Your task to perform on an android device: turn on priority inbox in the gmail app Image 0: 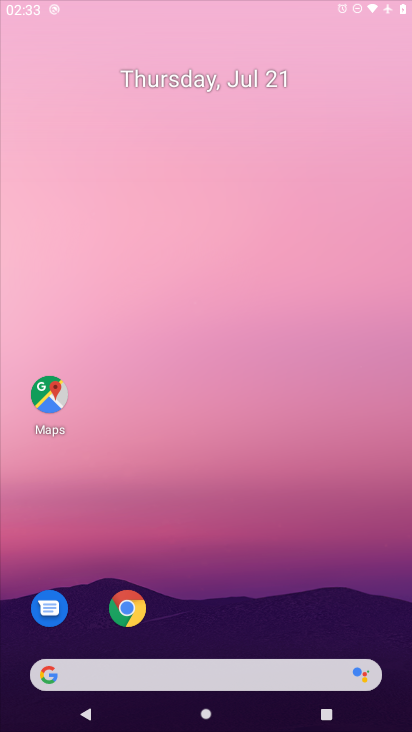
Step 0: press home button
Your task to perform on an android device: turn on priority inbox in the gmail app Image 1: 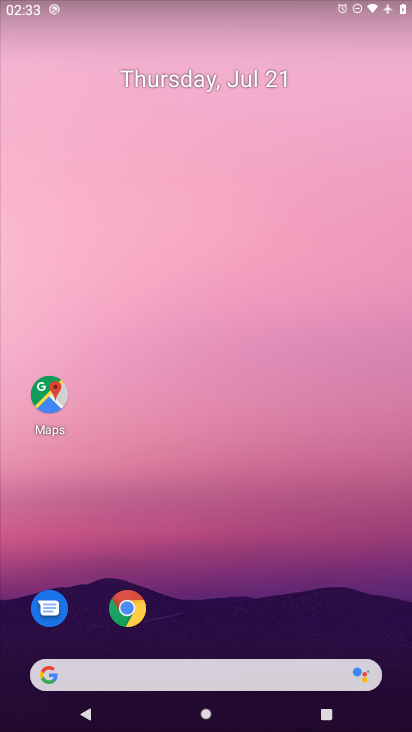
Step 1: drag from (249, 637) to (284, 121)
Your task to perform on an android device: turn on priority inbox in the gmail app Image 2: 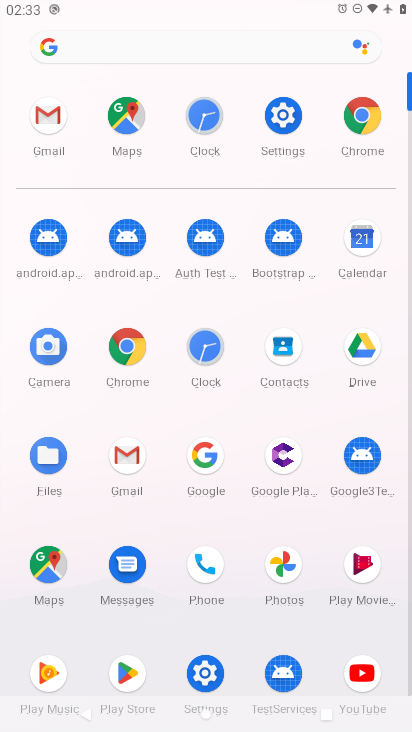
Step 2: click (55, 119)
Your task to perform on an android device: turn on priority inbox in the gmail app Image 3: 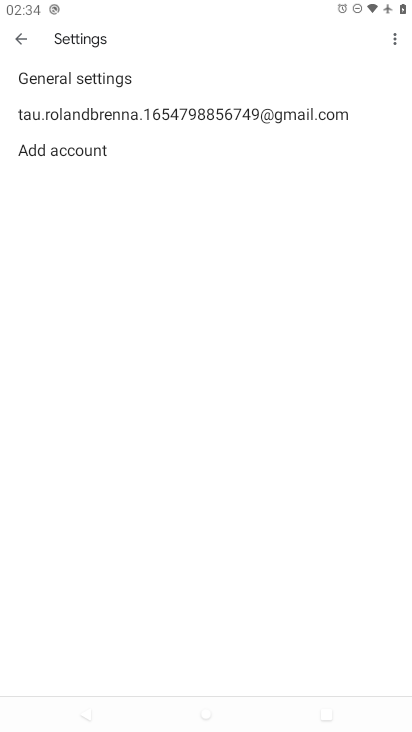
Step 3: click (58, 114)
Your task to perform on an android device: turn on priority inbox in the gmail app Image 4: 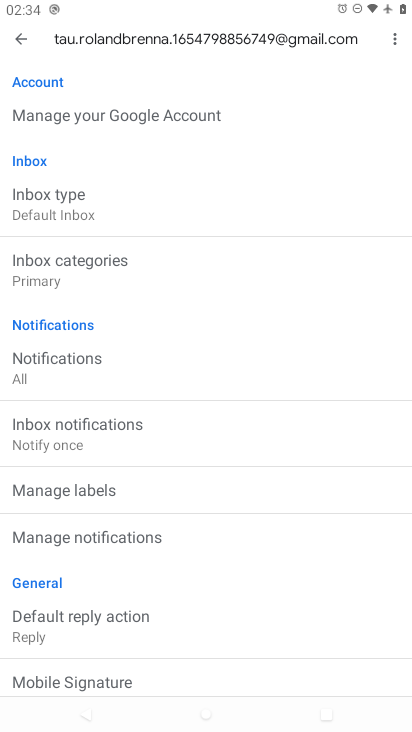
Step 4: click (65, 208)
Your task to perform on an android device: turn on priority inbox in the gmail app Image 5: 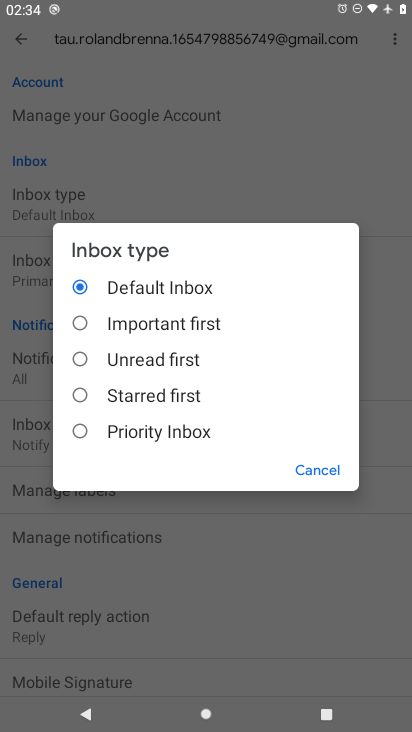
Step 5: click (80, 434)
Your task to perform on an android device: turn on priority inbox in the gmail app Image 6: 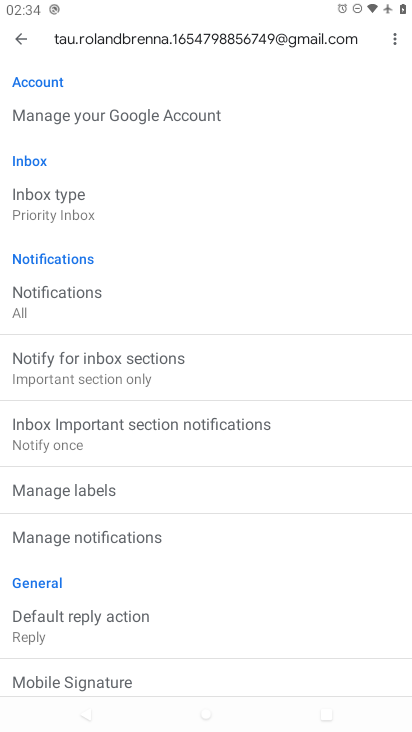
Step 6: task complete